Your task to perform on an android device: add a contact in the contacts app Image 0: 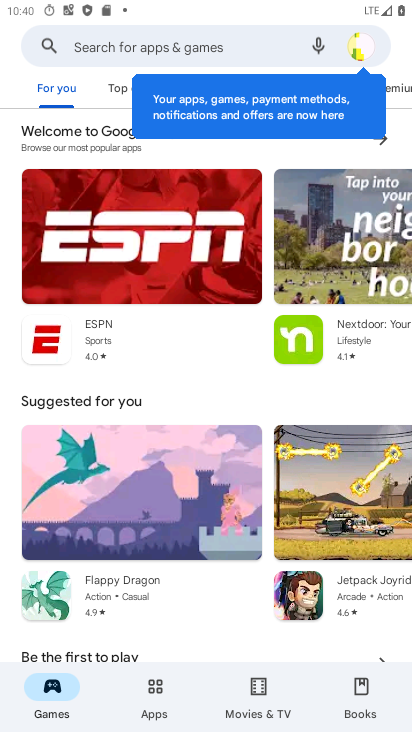
Step 0: press home button
Your task to perform on an android device: add a contact in the contacts app Image 1: 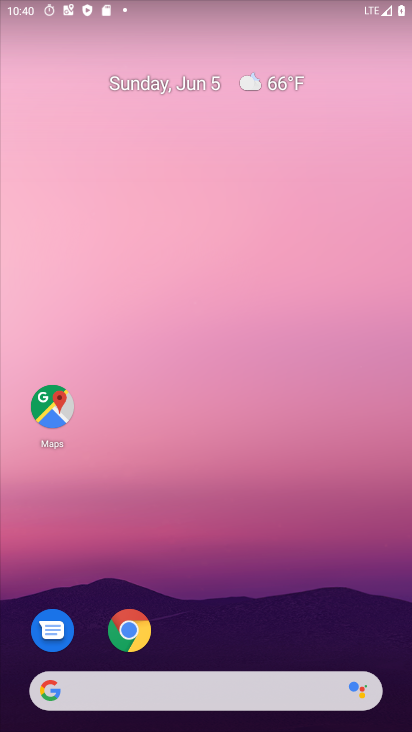
Step 1: drag from (218, 718) to (215, 50)
Your task to perform on an android device: add a contact in the contacts app Image 2: 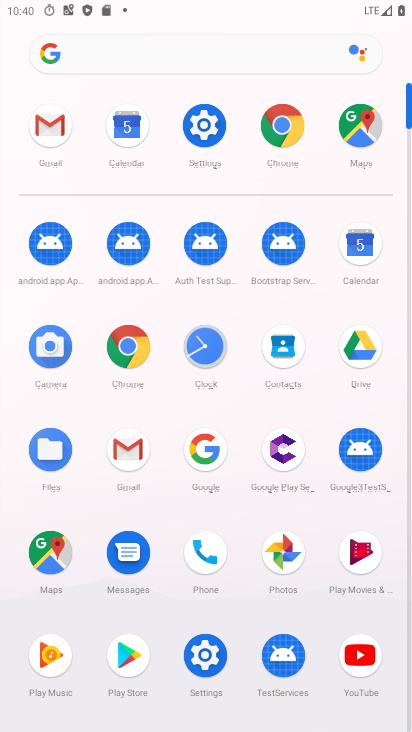
Step 2: click (282, 349)
Your task to perform on an android device: add a contact in the contacts app Image 3: 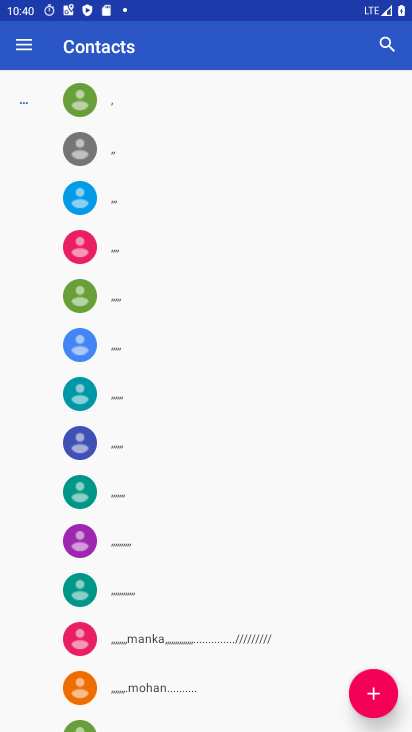
Step 3: click (375, 688)
Your task to perform on an android device: add a contact in the contacts app Image 4: 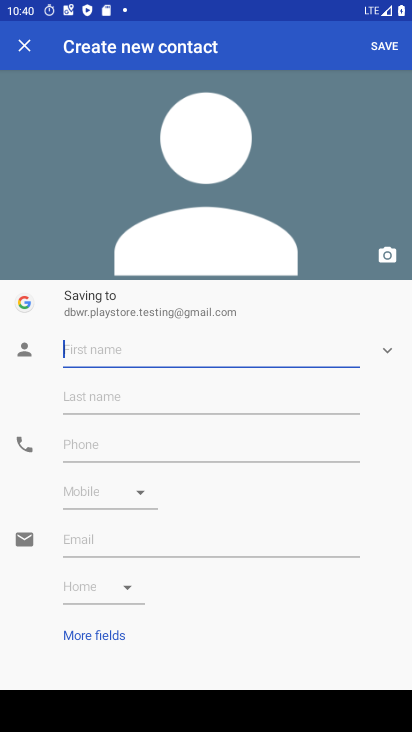
Step 4: type "imposs"
Your task to perform on an android device: add a contact in the contacts app Image 5: 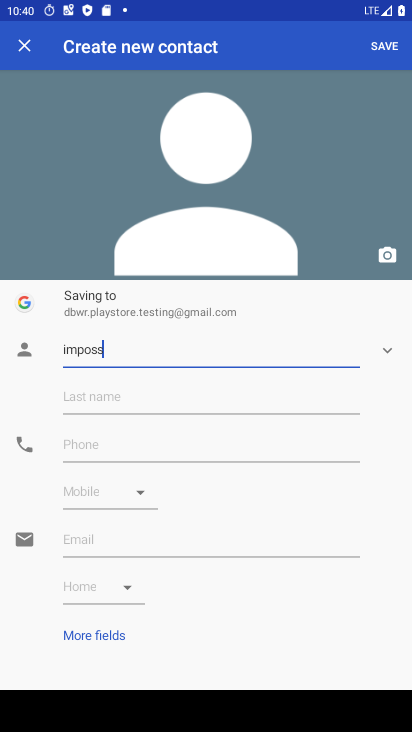
Step 5: type ""
Your task to perform on an android device: add a contact in the contacts app Image 6: 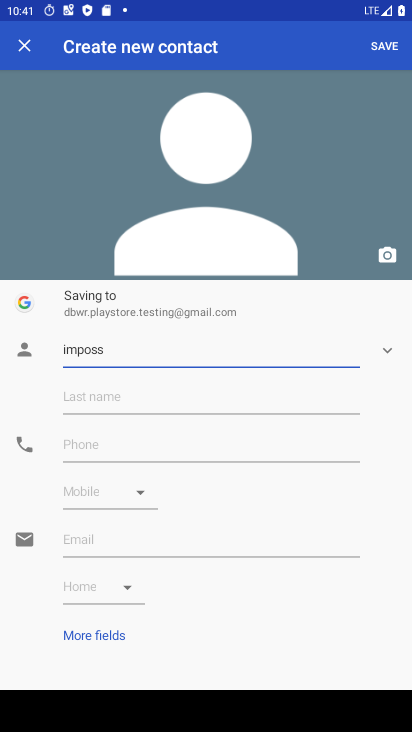
Step 6: click (124, 445)
Your task to perform on an android device: add a contact in the contacts app Image 7: 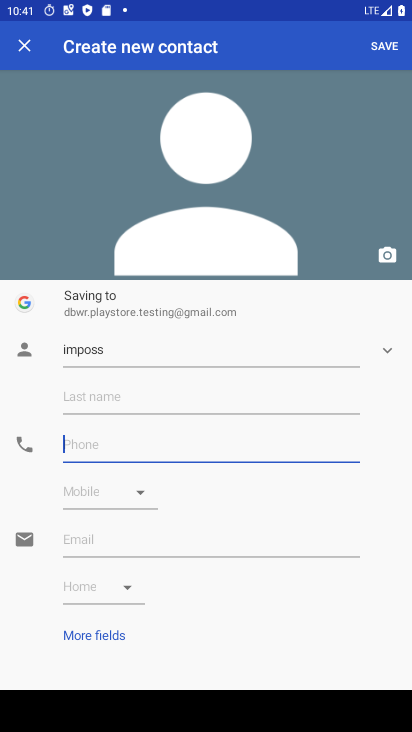
Step 7: type "8765456678"
Your task to perform on an android device: add a contact in the contacts app Image 8: 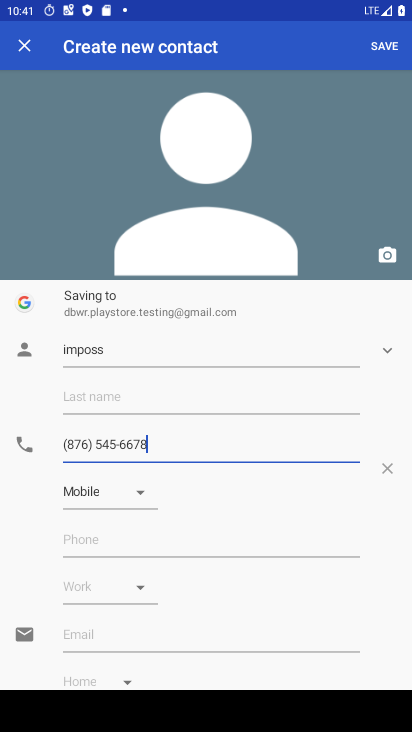
Step 8: type ""
Your task to perform on an android device: add a contact in the contacts app Image 9: 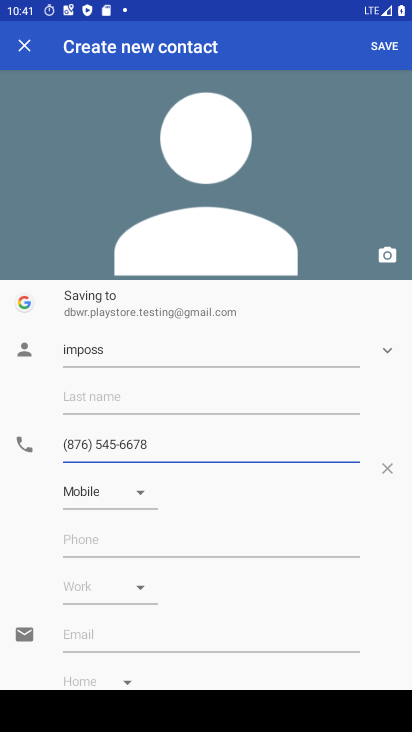
Step 9: click (386, 45)
Your task to perform on an android device: add a contact in the contacts app Image 10: 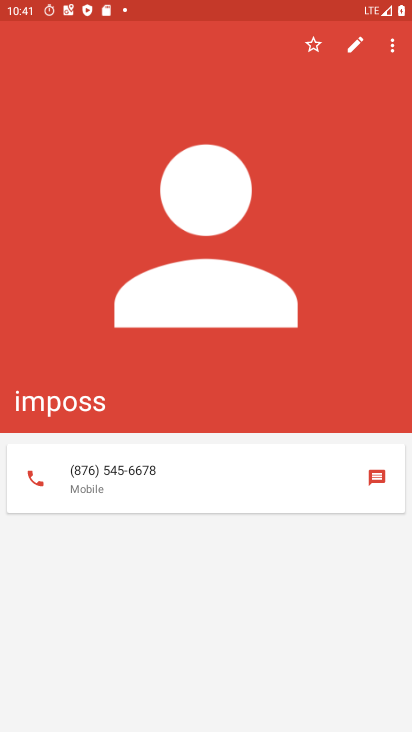
Step 10: task complete